Your task to perform on an android device: Open Youtube and go to "Your channel" Image 0: 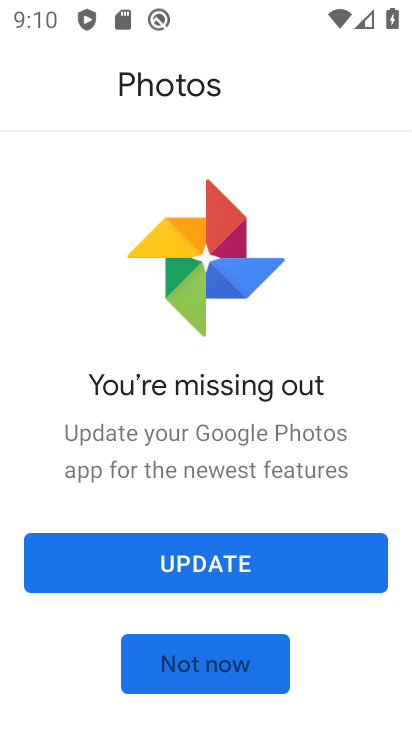
Step 0: press home button
Your task to perform on an android device: Open Youtube and go to "Your channel" Image 1: 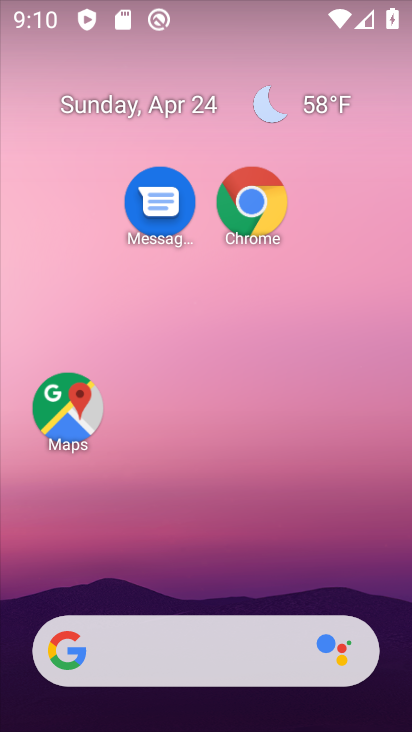
Step 1: drag from (207, 724) to (186, 134)
Your task to perform on an android device: Open Youtube and go to "Your channel" Image 2: 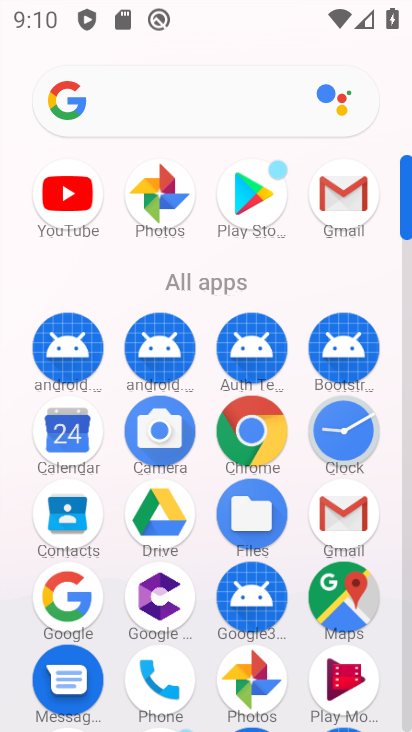
Step 2: click (63, 212)
Your task to perform on an android device: Open Youtube and go to "Your channel" Image 3: 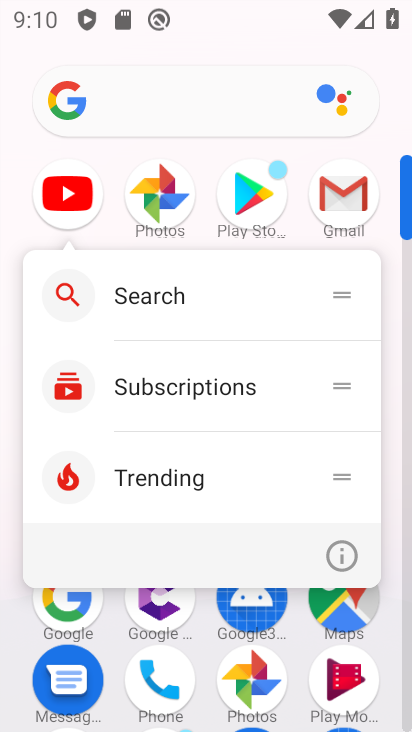
Step 3: click (61, 185)
Your task to perform on an android device: Open Youtube and go to "Your channel" Image 4: 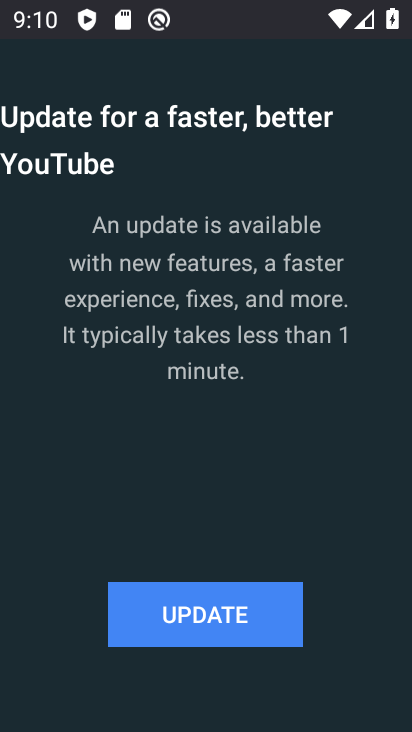
Step 4: task complete